Your task to perform on an android device: Go to Google maps Image 0: 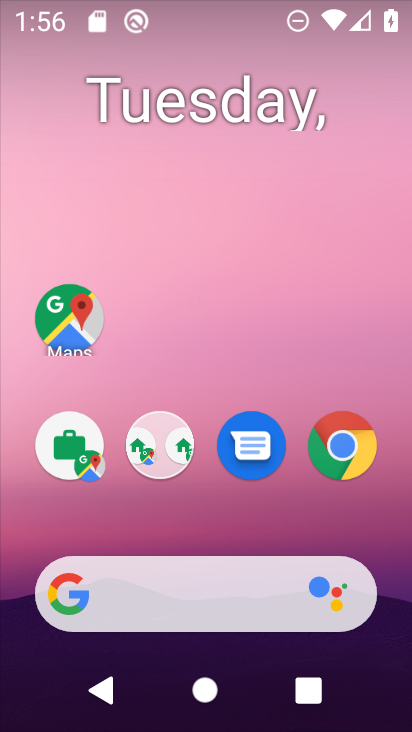
Step 0: click (53, 340)
Your task to perform on an android device: Go to Google maps Image 1: 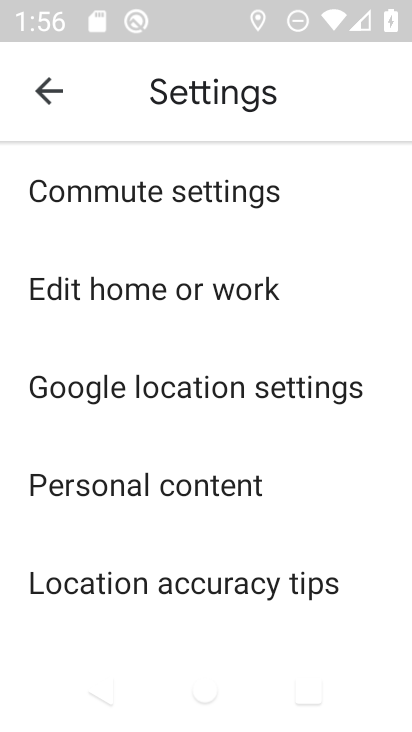
Step 1: click (47, 106)
Your task to perform on an android device: Go to Google maps Image 2: 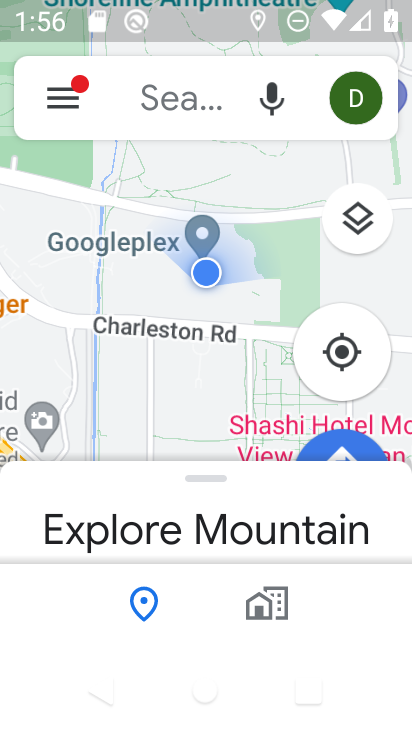
Step 2: task complete